Your task to perform on an android device: Open the phone app and click the voicemail tab. Image 0: 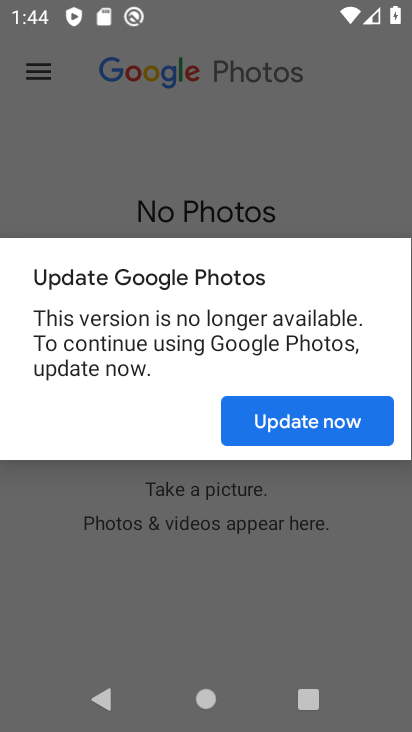
Step 0: press home button
Your task to perform on an android device: Open the phone app and click the voicemail tab. Image 1: 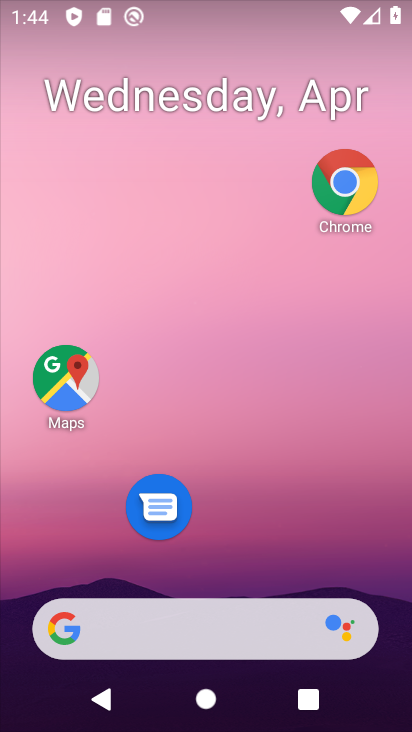
Step 1: drag from (248, 649) to (167, 252)
Your task to perform on an android device: Open the phone app and click the voicemail tab. Image 2: 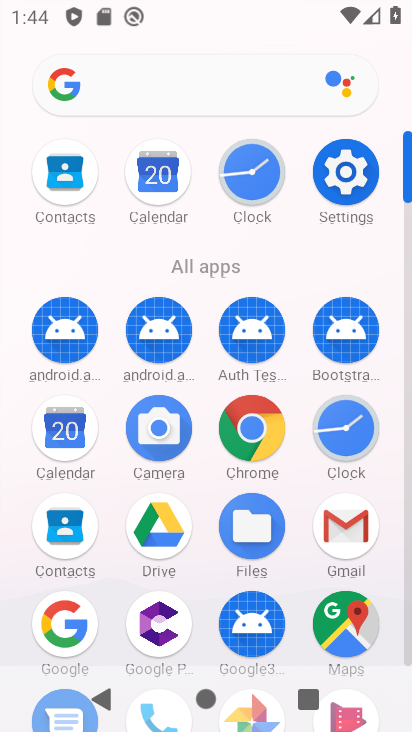
Step 2: drag from (211, 404) to (173, 57)
Your task to perform on an android device: Open the phone app and click the voicemail tab. Image 3: 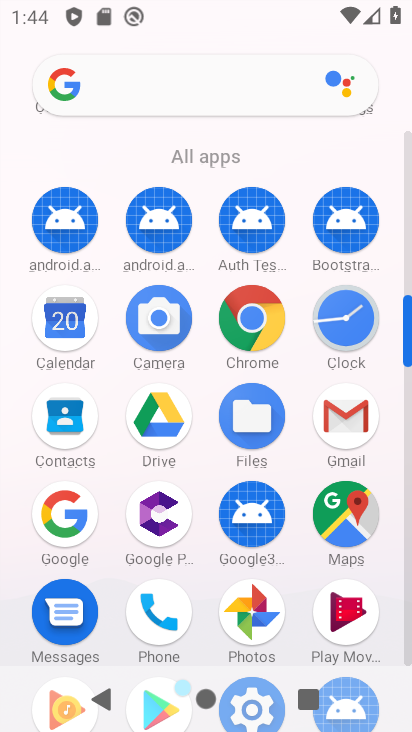
Step 3: click (171, 616)
Your task to perform on an android device: Open the phone app and click the voicemail tab. Image 4: 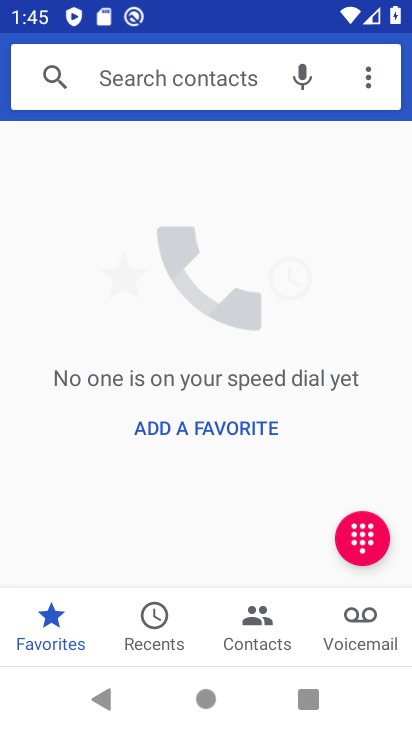
Step 4: click (344, 620)
Your task to perform on an android device: Open the phone app and click the voicemail tab. Image 5: 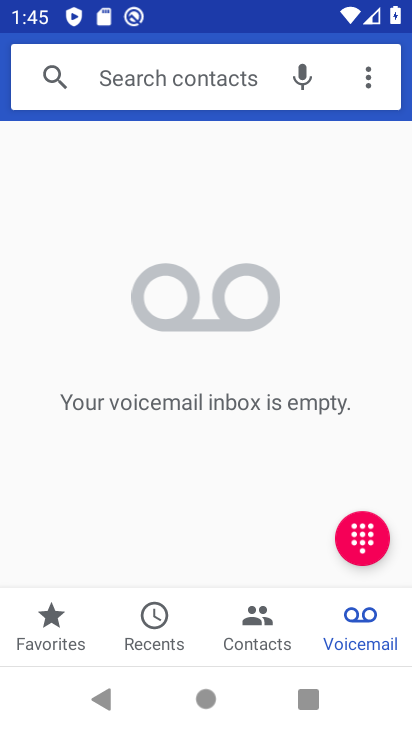
Step 5: task complete